Your task to perform on an android device: open app "Gmail" (install if not already installed) Image 0: 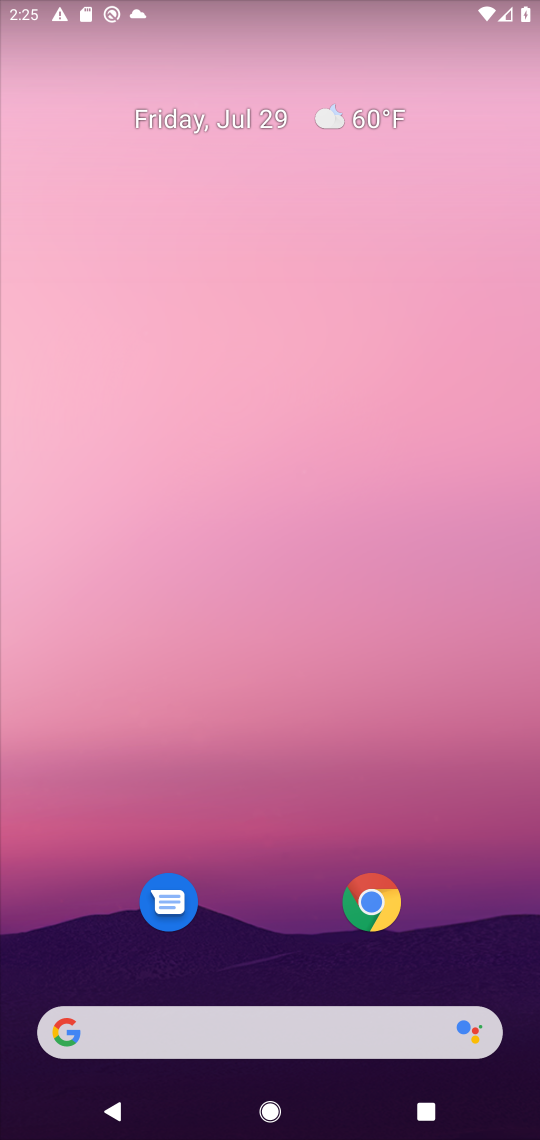
Step 0: drag from (327, 1011) to (243, 233)
Your task to perform on an android device: open app "Gmail" (install if not already installed) Image 1: 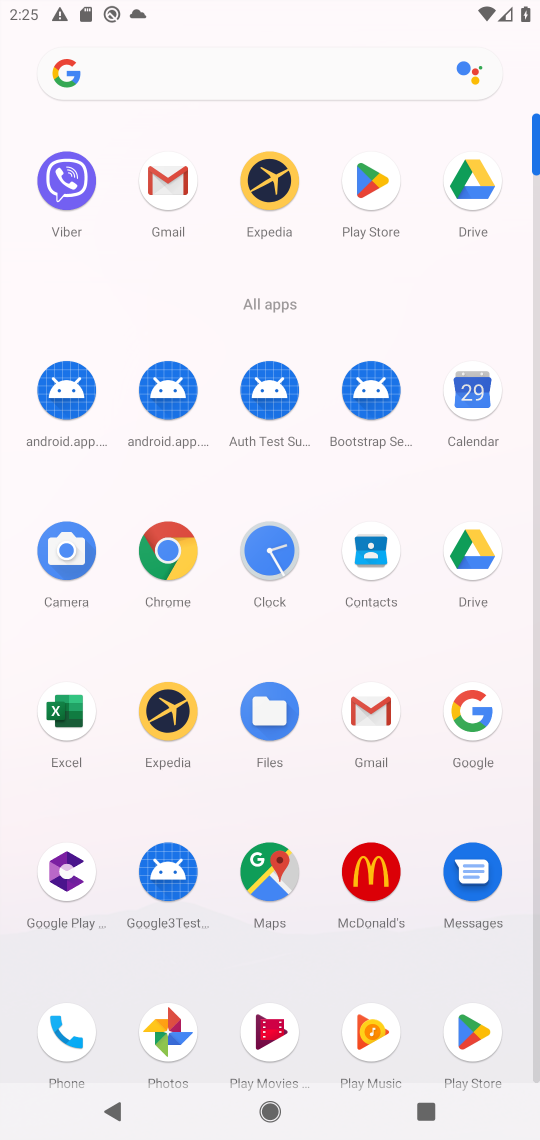
Step 1: click (379, 732)
Your task to perform on an android device: open app "Gmail" (install if not already installed) Image 2: 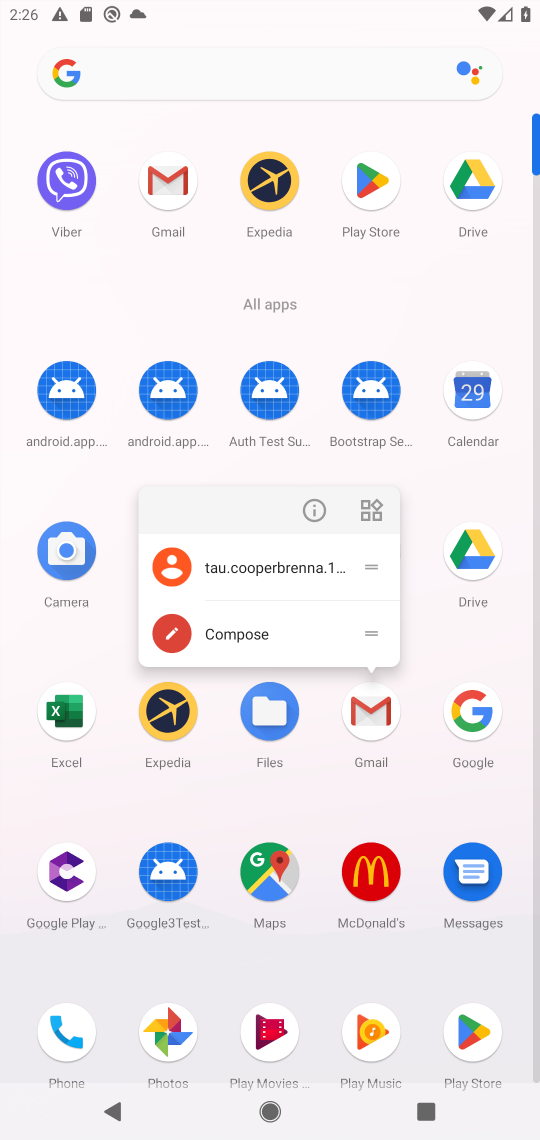
Step 2: click (372, 712)
Your task to perform on an android device: open app "Gmail" (install if not already installed) Image 3: 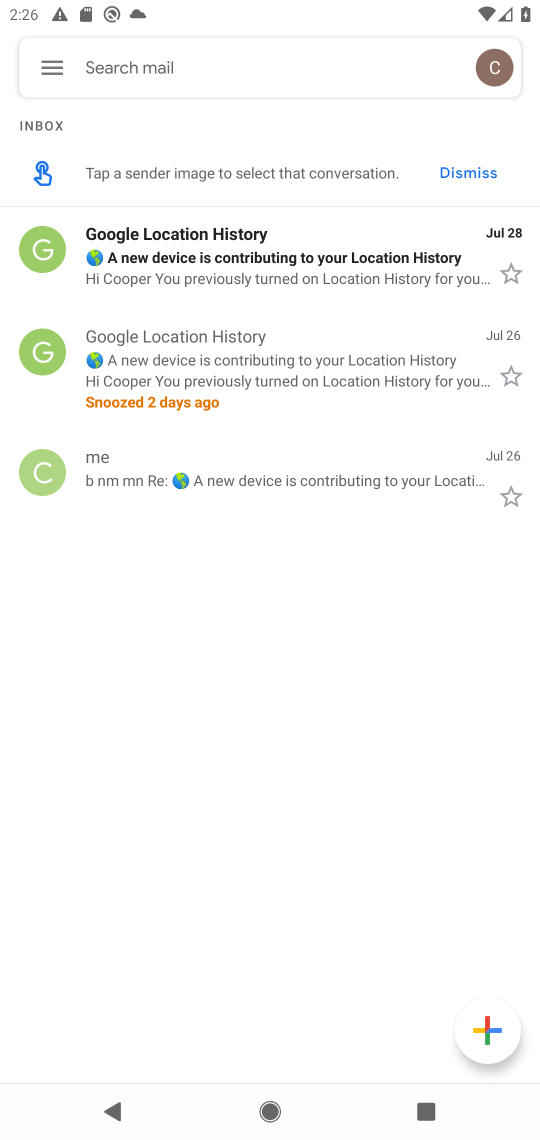
Step 3: task complete